Your task to perform on an android device: uninstall "PlayWell" Image 0: 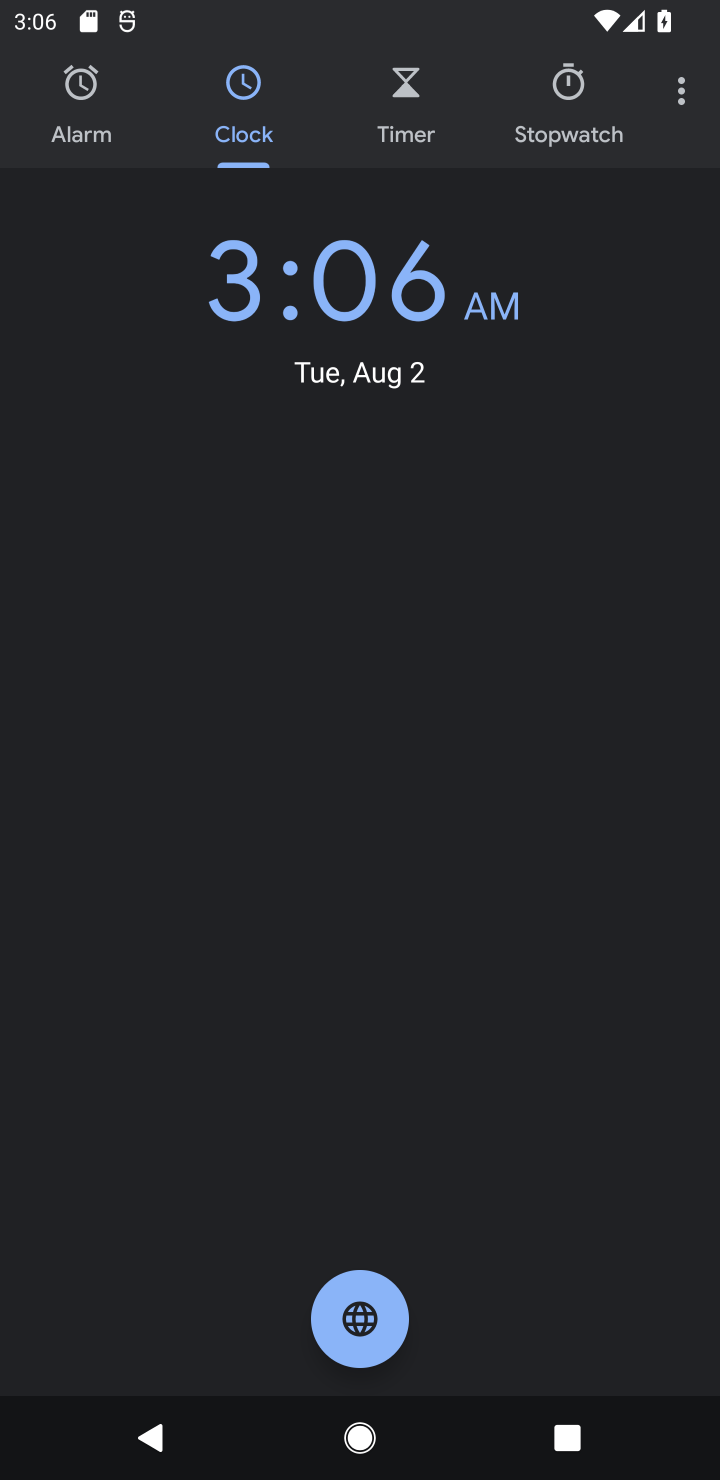
Step 0: press home button
Your task to perform on an android device: uninstall "PlayWell" Image 1: 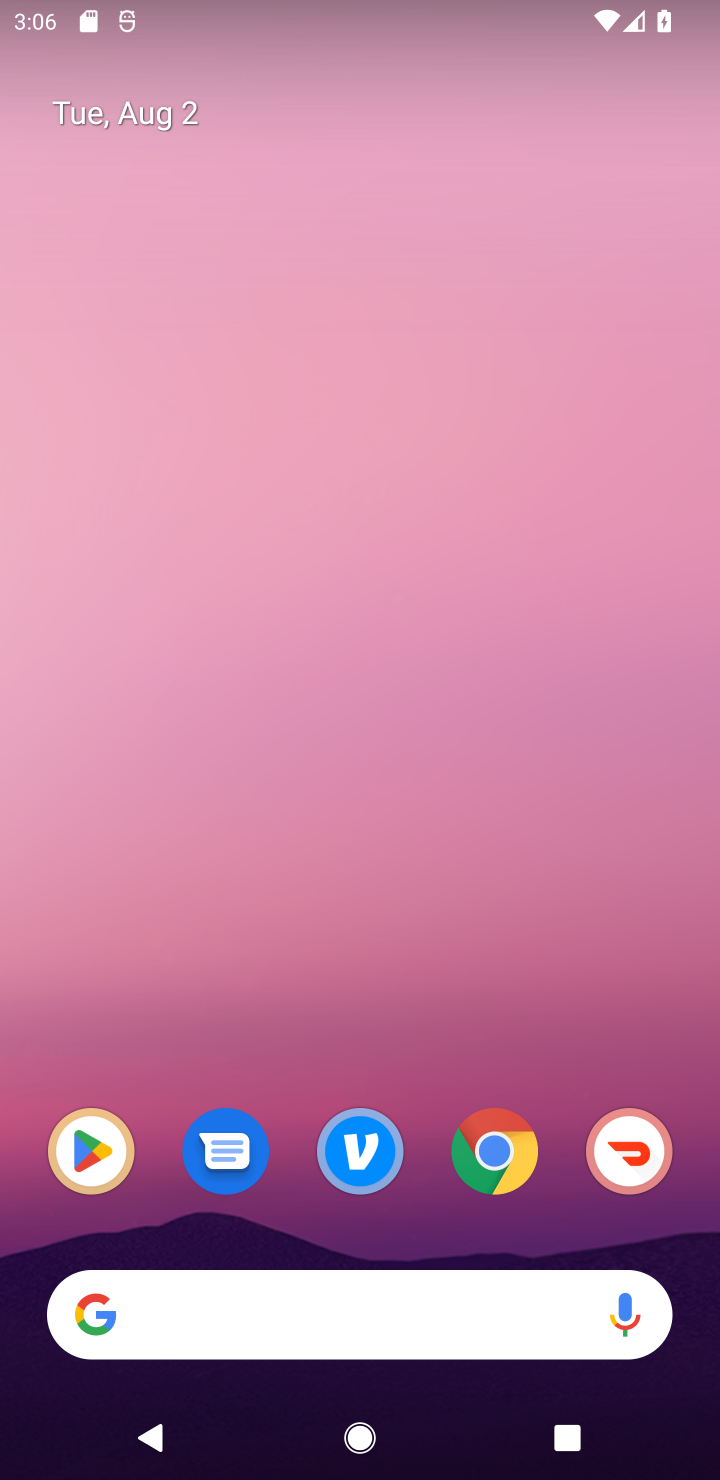
Step 1: drag from (332, 1139) to (458, 235)
Your task to perform on an android device: uninstall "PlayWell" Image 2: 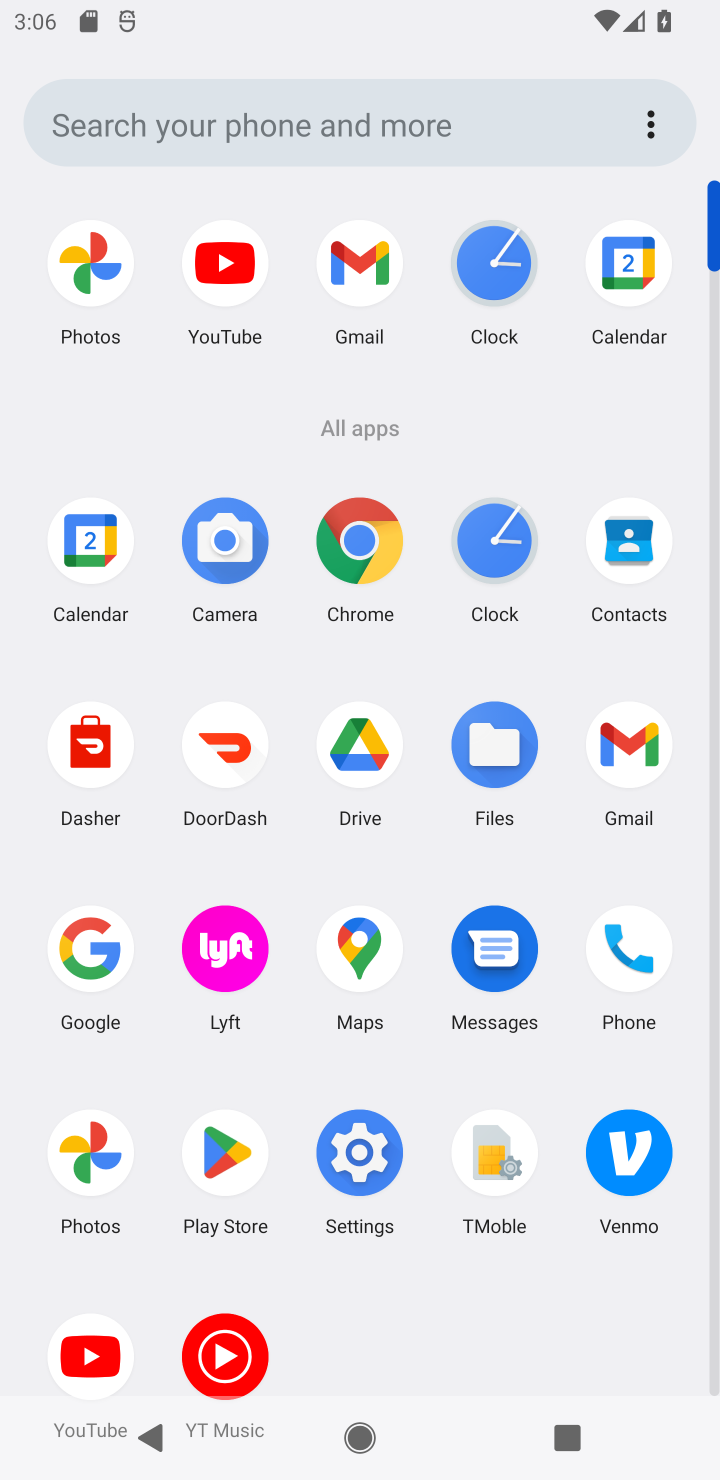
Step 2: click (237, 1178)
Your task to perform on an android device: uninstall "PlayWell" Image 3: 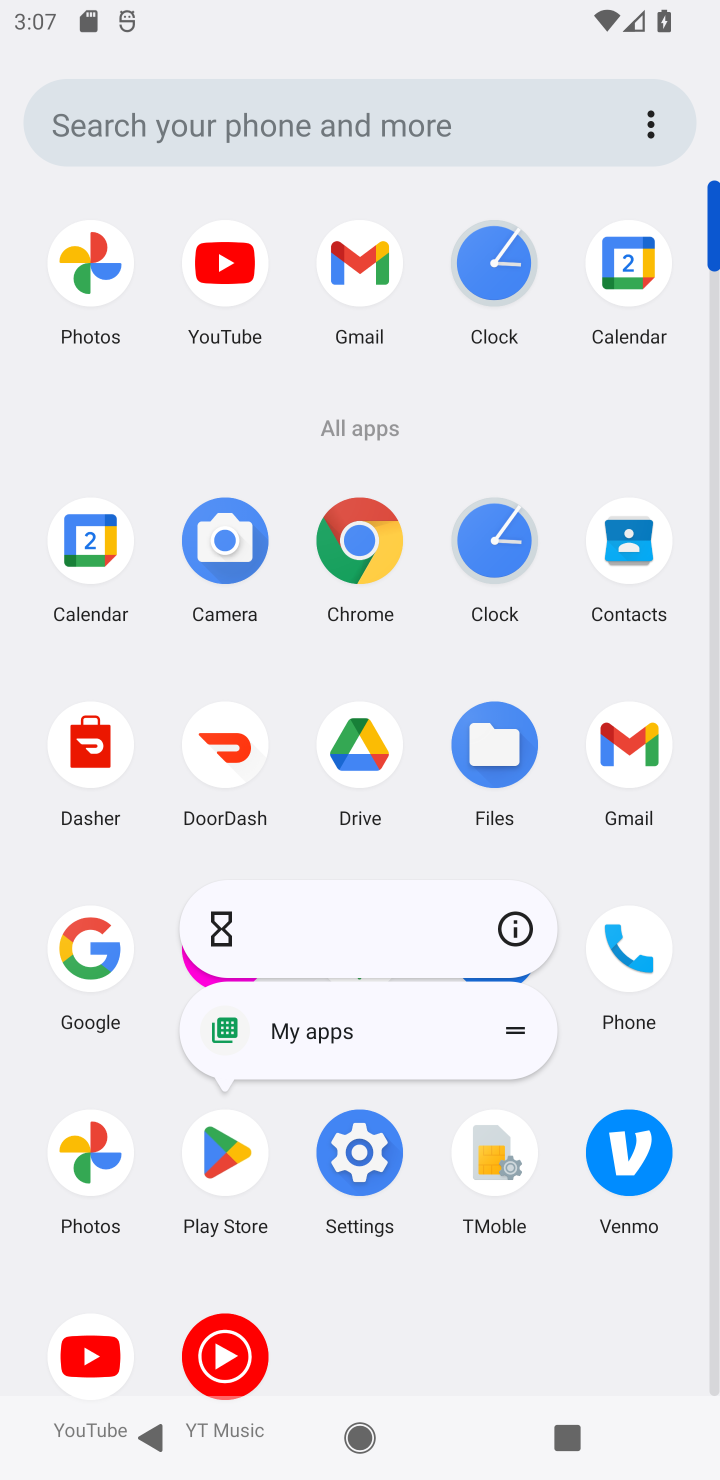
Step 3: click (226, 1184)
Your task to perform on an android device: uninstall "PlayWell" Image 4: 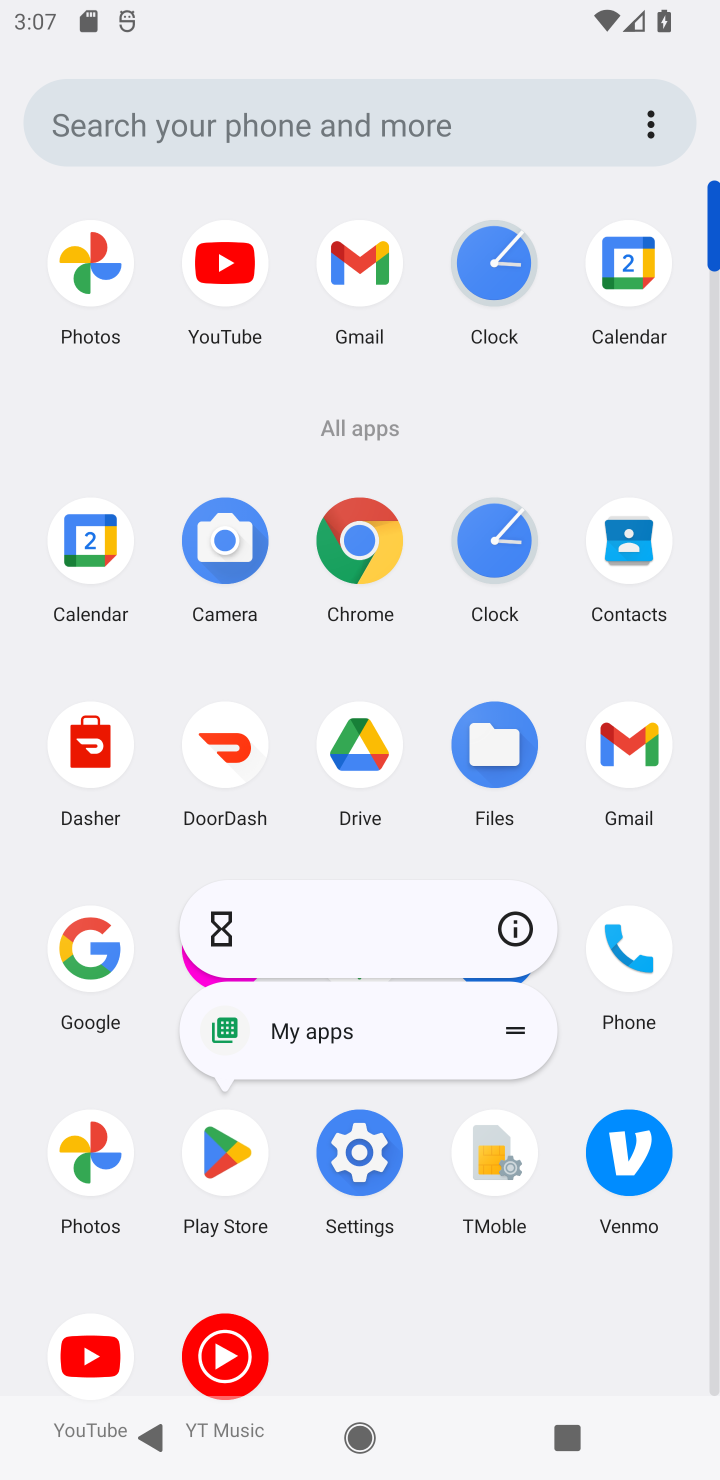
Step 4: click (229, 1193)
Your task to perform on an android device: uninstall "PlayWell" Image 5: 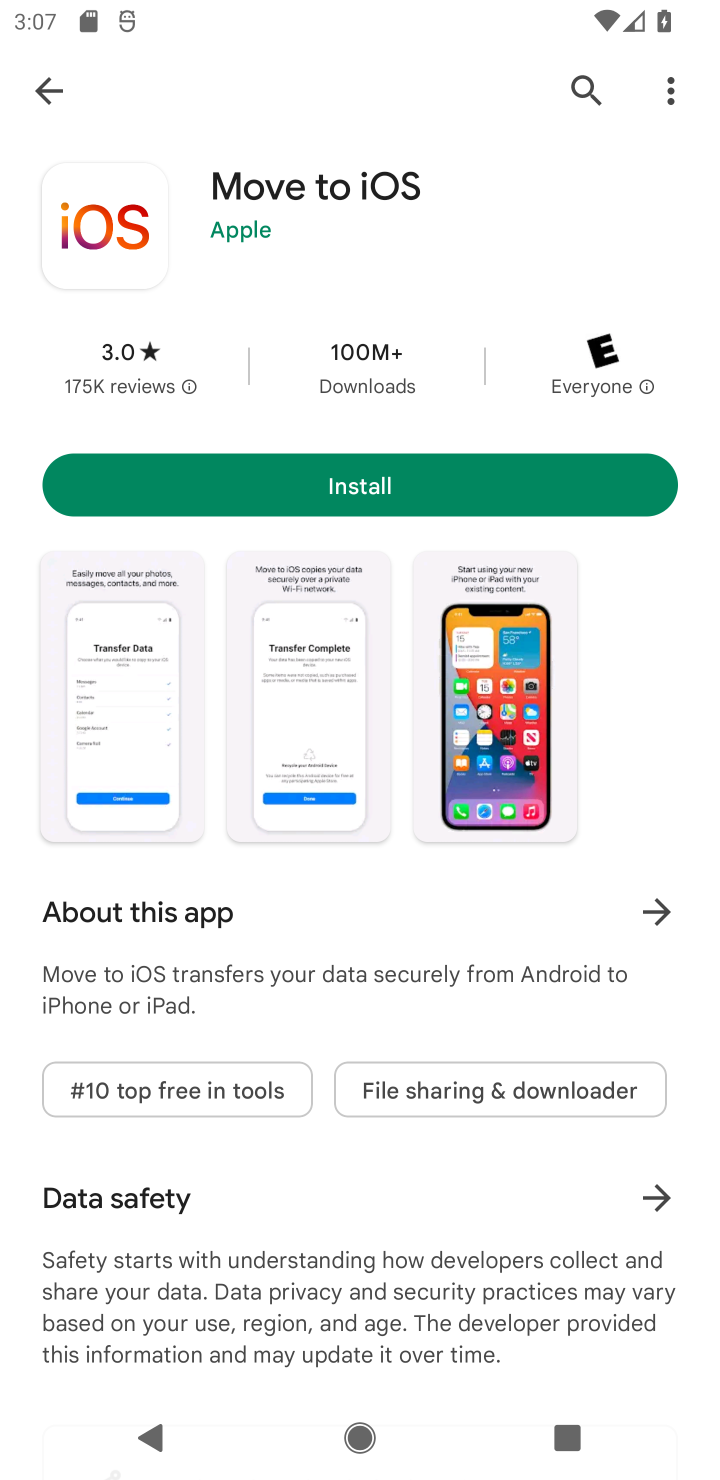
Step 5: click (28, 88)
Your task to perform on an android device: uninstall "PlayWell" Image 6: 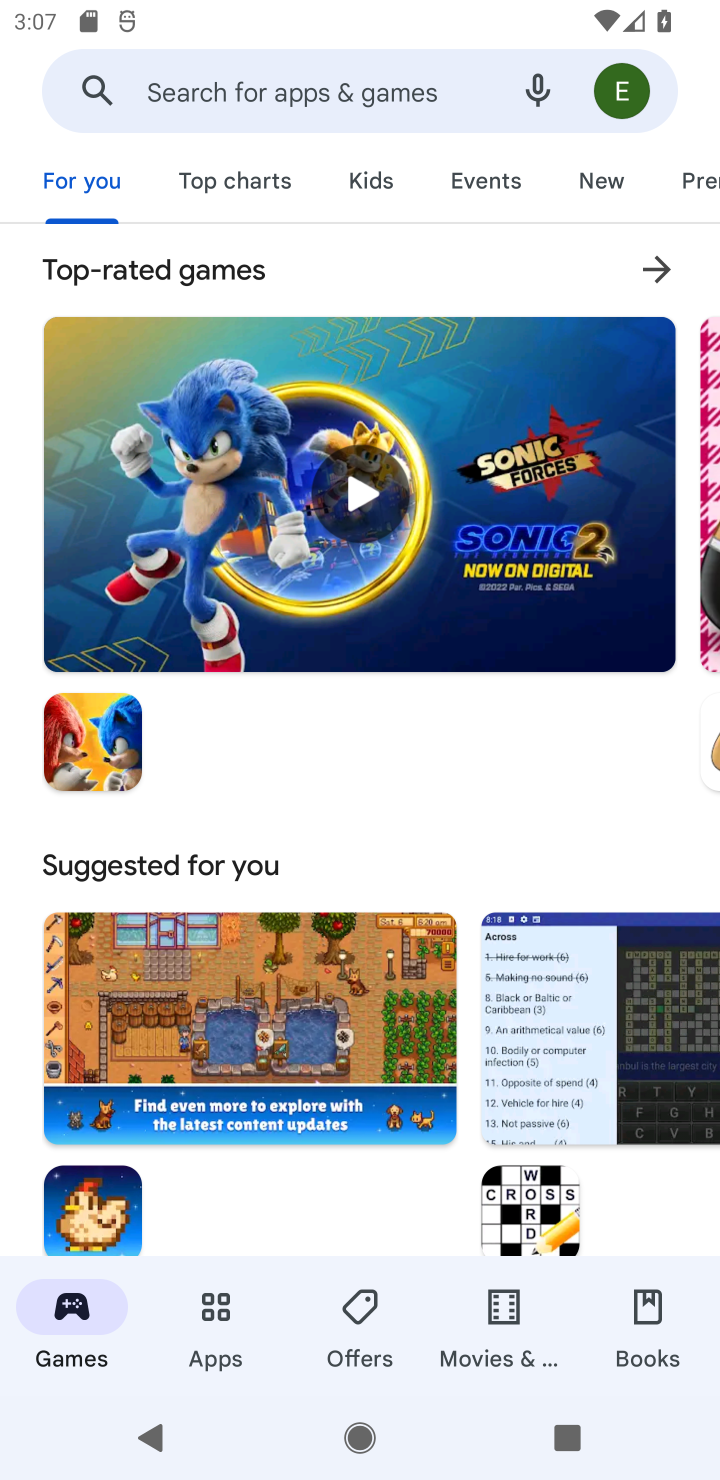
Step 6: click (242, 97)
Your task to perform on an android device: uninstall "PlayWell" Image 7: 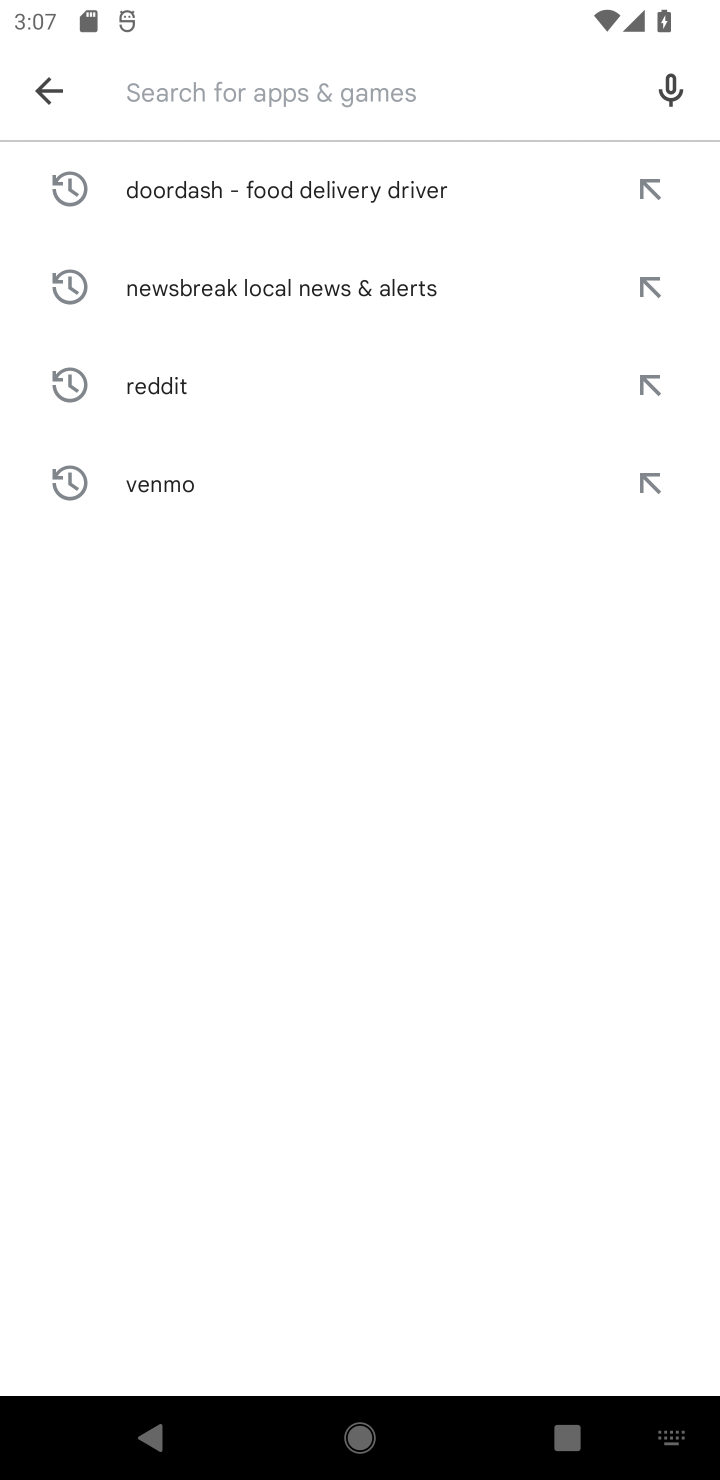
Step 7: type "PlayWell"
Your task to perform on an android device: uninstall "PlayWell" Image 8: 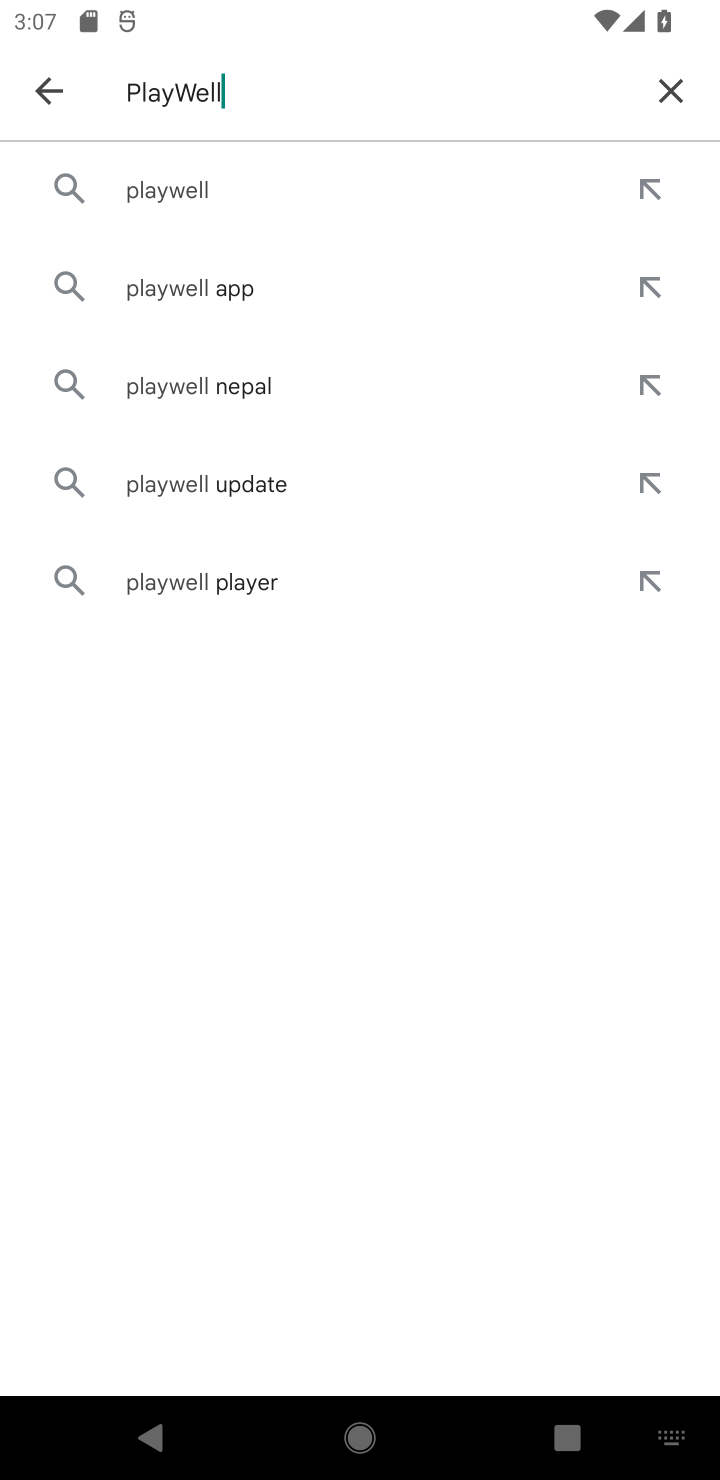
Step 8: click (241, 170)
Your task to perform on an android device: uninstall "PlayWell" Image 9: 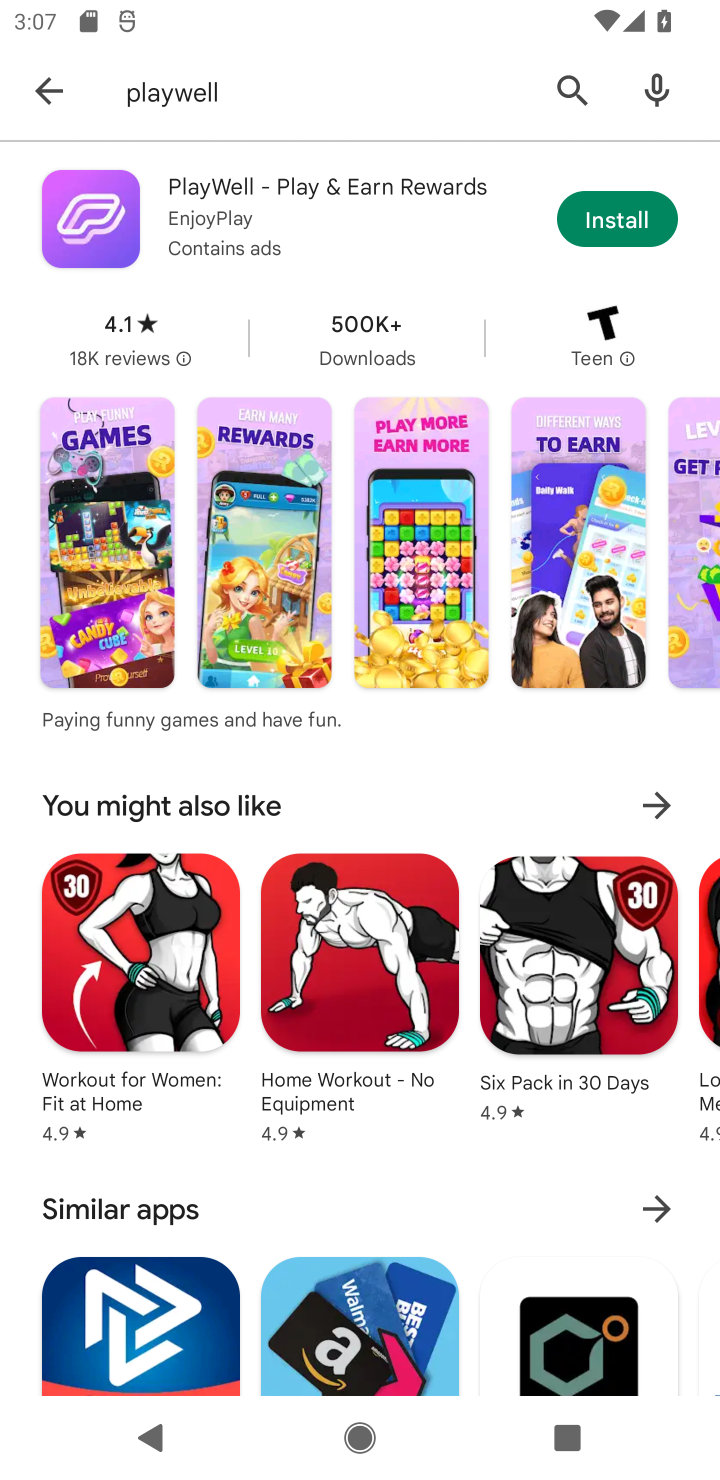
Step 9: task complete